Your task to perform on an android device: open device folders in google photos Image 0: 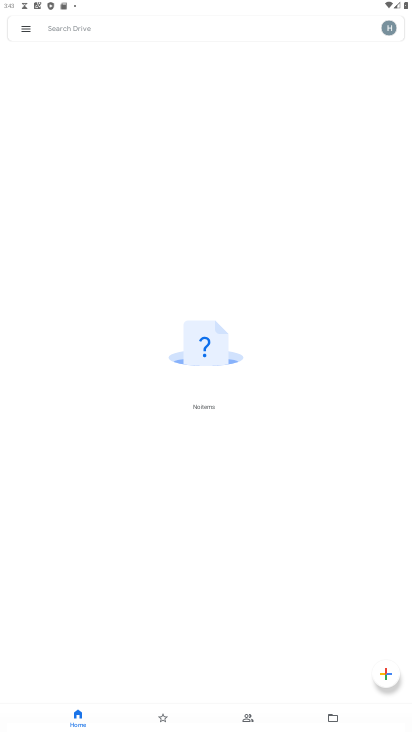
Step 0: press home button
Your task to perform on an android device: open device folders in google photos Image 1: 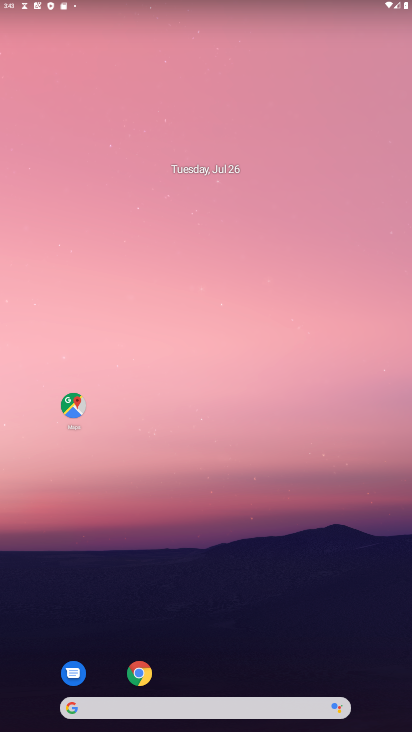
Step 1: drag from (161, 708) to (246, 190)
Your task to perform on an android device: open device folders in google photos Image 2: 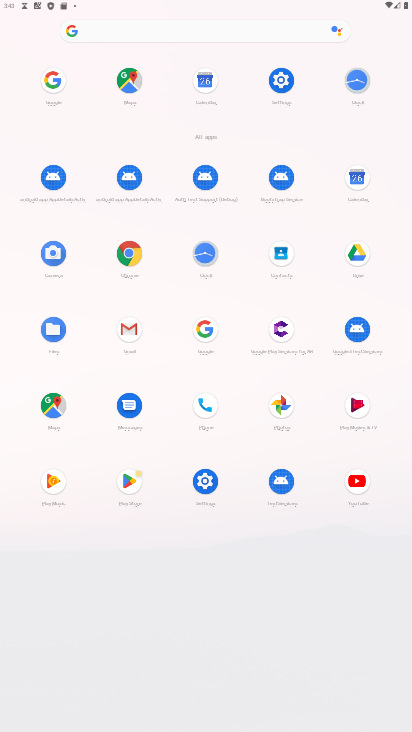
Step 2: click (281, 406)
Your task to perform on an android device: open device folders in google photos Image 3: 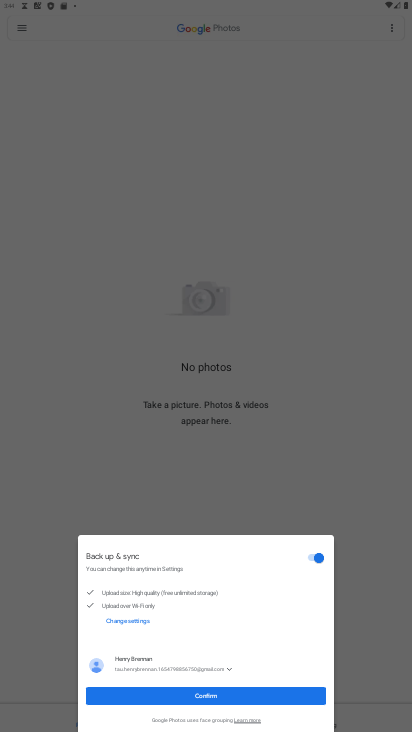
Step 3: click (209, 695)
Your task to perform on an android device: open device folders in google photos Image 4: 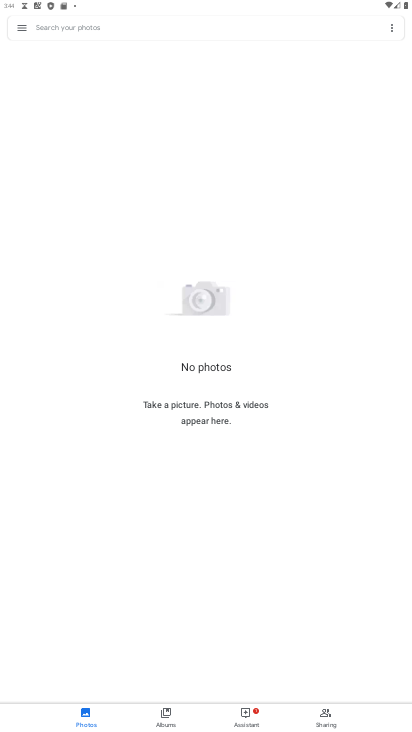
Step 4: click (23, 27)
Your task to perform on an android device: open device folders in google photos Image 5: 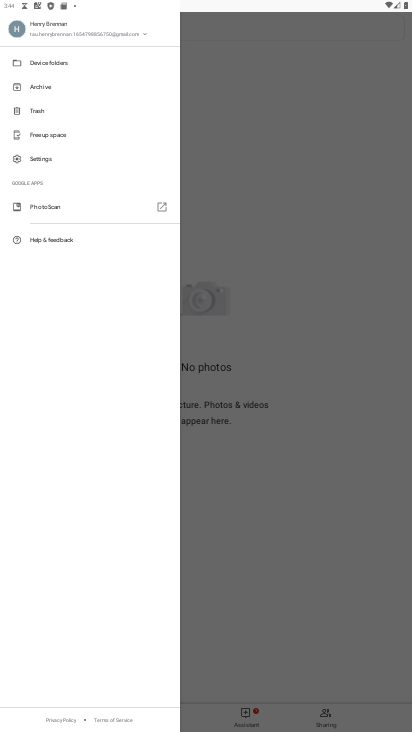
Step 5: click (47, 65)
Your task to perform on an android device: open device folders in google photos Image 6: 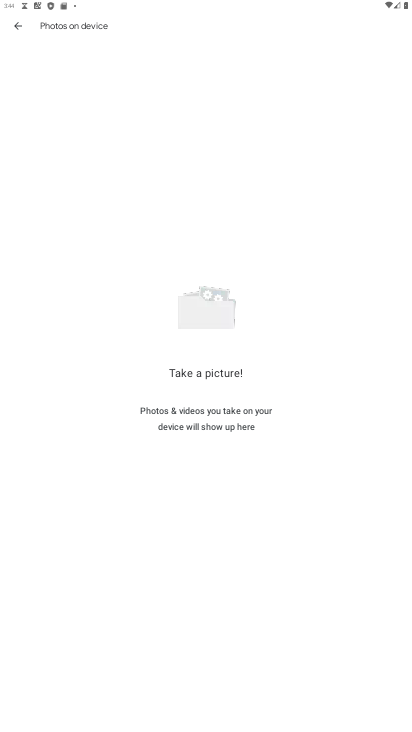
Step 6: task complete